Your task to perform on an android device: turn off notifications in google photos Image 0: 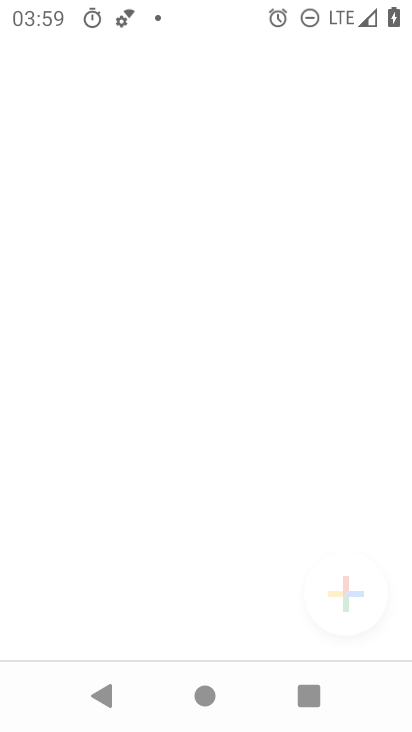
Step 0: drag from (286, 571) to (315, 113)
Your task to perform on an android device: turn off notifications in google photos Image 1: 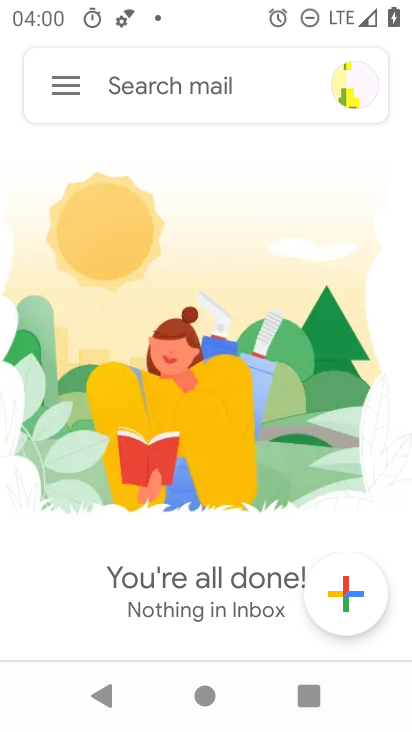
Step 1: click (65, 89)
Your task to perform on an android device: turn off notifications in google photos Image 2: 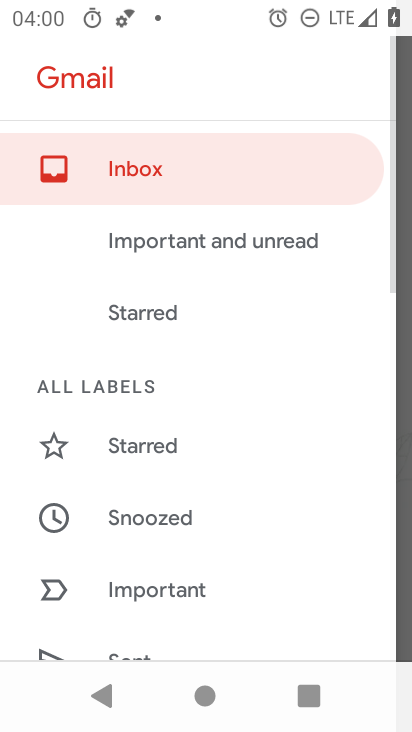
Step 2: drag from (268, 618) to (315, 10)
Your task to perform on an android device: turn off notifications in google photos Image 3: 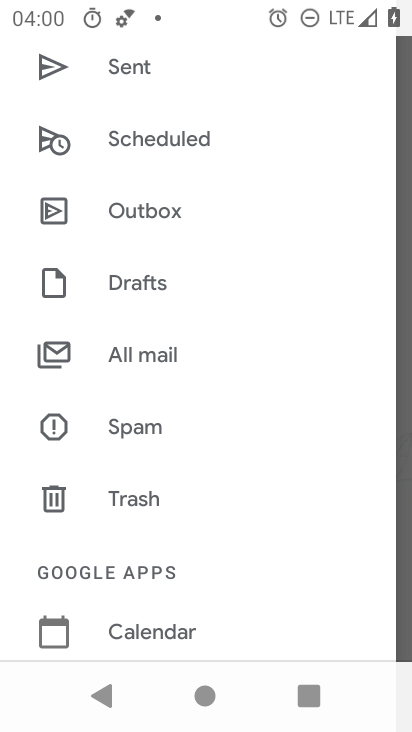
Step 3: drag from (220, 637) to (315, 56)
Your task to perform on an android device: turn off notifications in google photos Image 4: 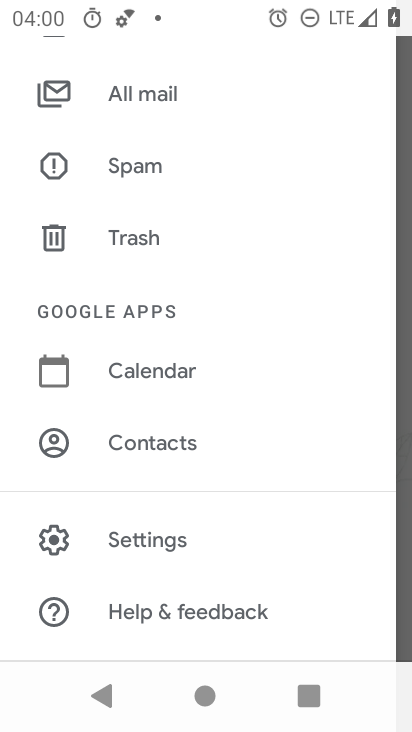
Step 4: press home button
Your task to perform on an android device: turn off notifications in google photos Image 5: 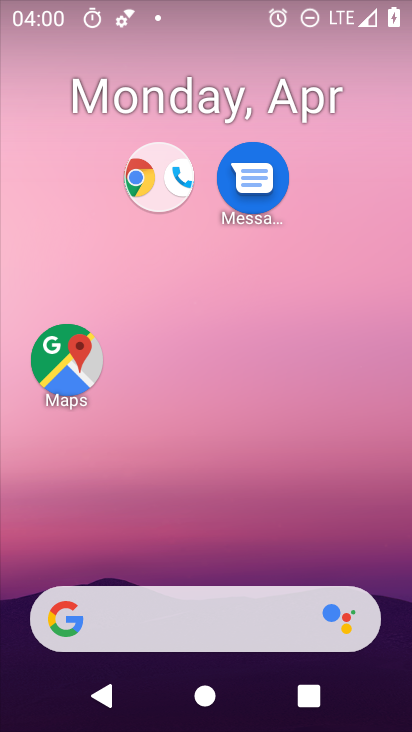
Step 5: drag from (301, 546) to (373, 1)
Your task to perform on an android device: turn off notifications in google photos Image 6: 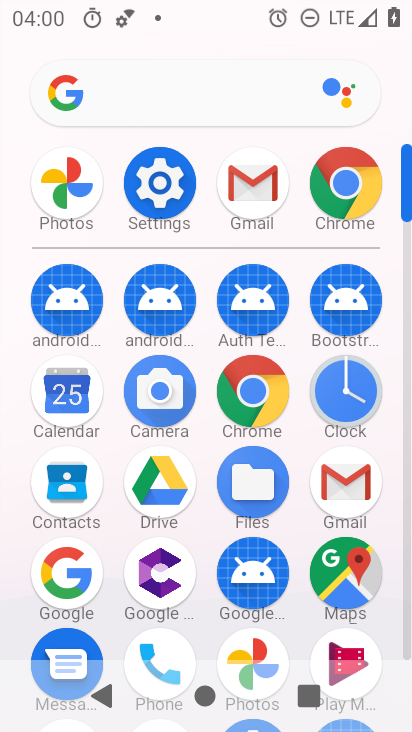
Step 6: drag from (279, 628) to (311, 172)
Your task to perform on an android device: turn off notifications in google photos Image 7: 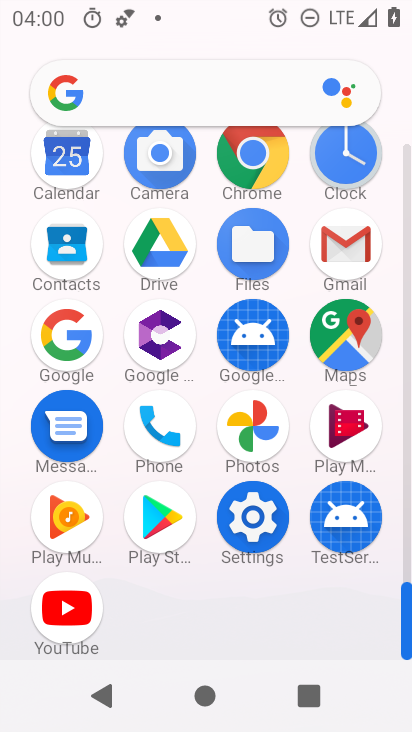
Step 7: click (263, 449)
Your task to perform on an android device: turn off notifications in google photos Image 8: 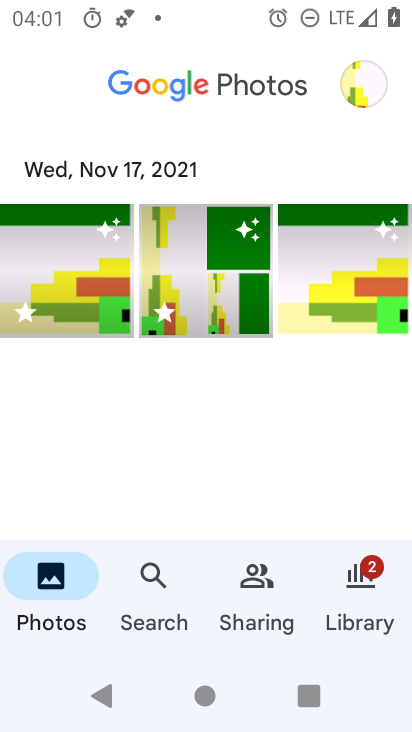
Step 8: click (384, 84)
Your task to perform on an android device: turn off notifications in google photos Image 9: 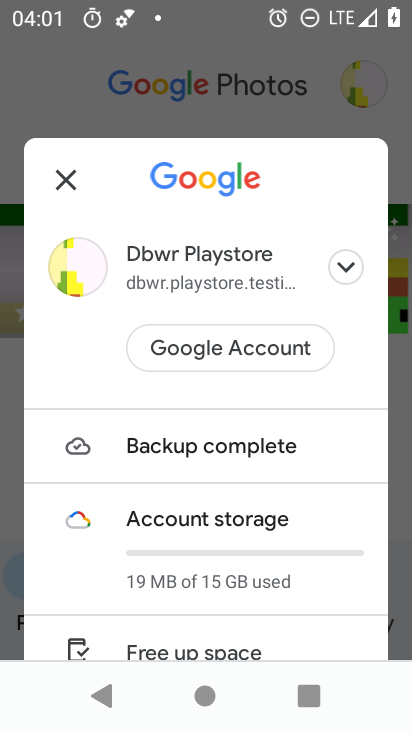
Step 9: drag from (301, 618) to (293, 90)
Your task to perform on an android device: turn off notifications in google photos Image 10: 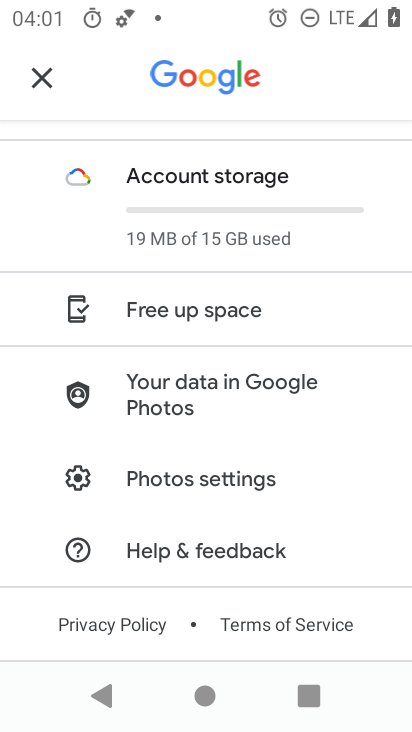
Step 10: click (40, 79)
Your task to perform on an android device: turn off notifications in google photos Image 11: 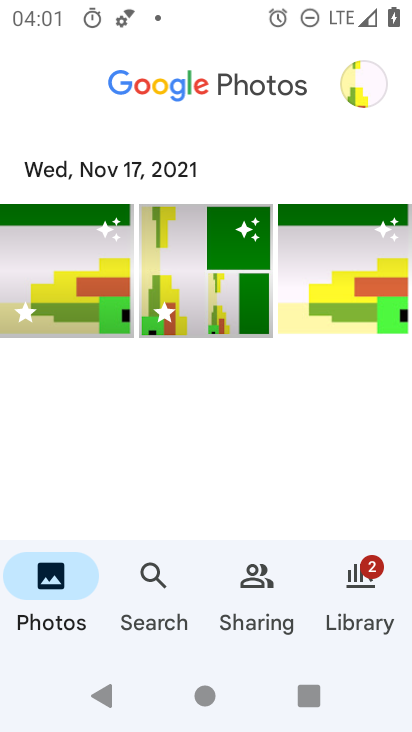
Step 11: click (377, 86)
Your task to perform on an android device: turn off notifications in google photos Image 12: 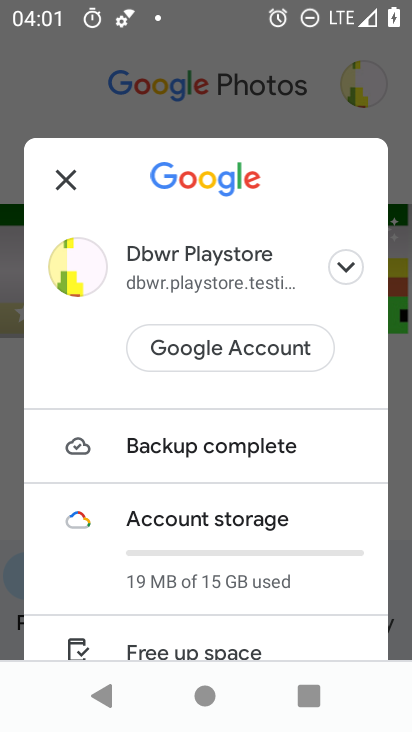
Step 12: click (70, 170)
Your task to perform on an android device: turn off notifications in google photos Image 13: 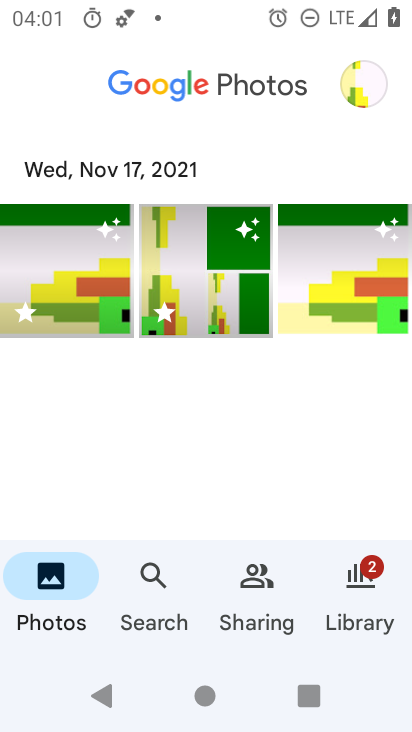
Step 13: click (350, 94)
Your task to perform on an android device: turn off notifications in google photos Image 14: 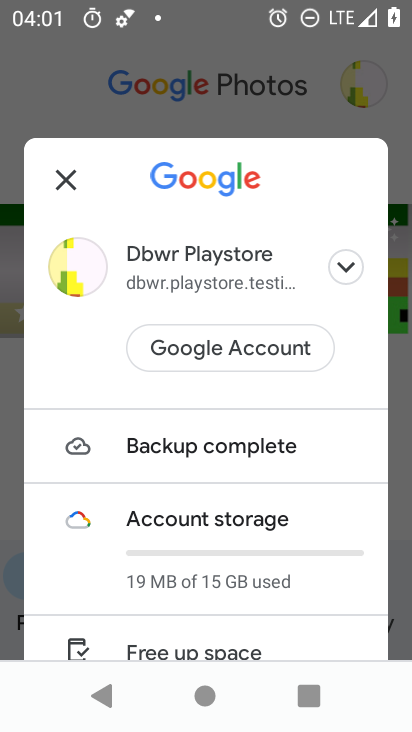
Step 14: drag from (219, 551) to (227, 144)
Your task to perform on an android device: turn off notifications in google photos Image 15: 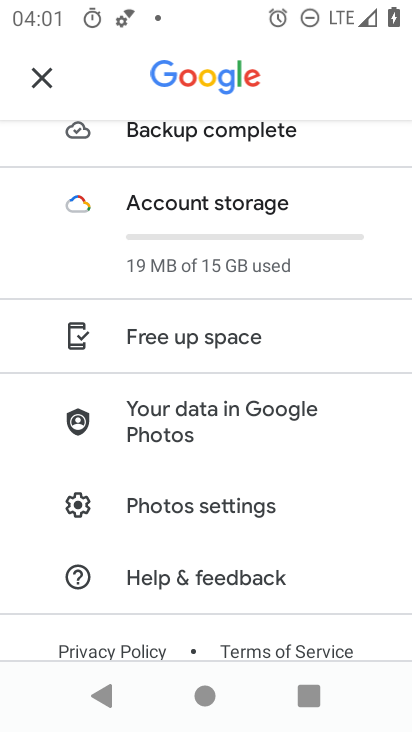
Step 15: click (248, 508)
Your task to perform on an android device: turn off notifications in google photos Image 16: 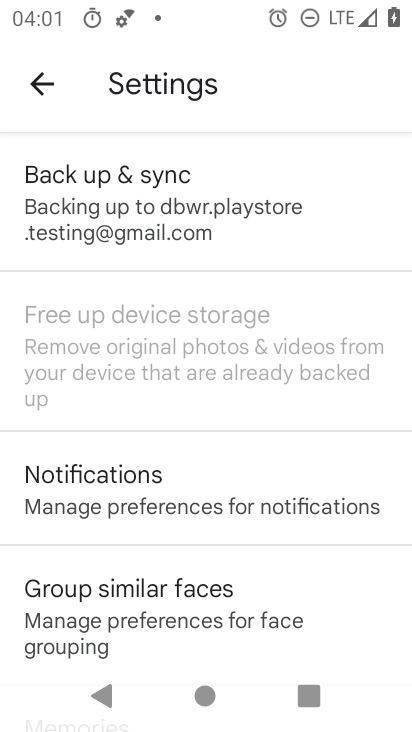
Step 16: drag from (277, 660) to (254, 392)
Your task to perform on an android device: turn off notifications in google photos Image 17: 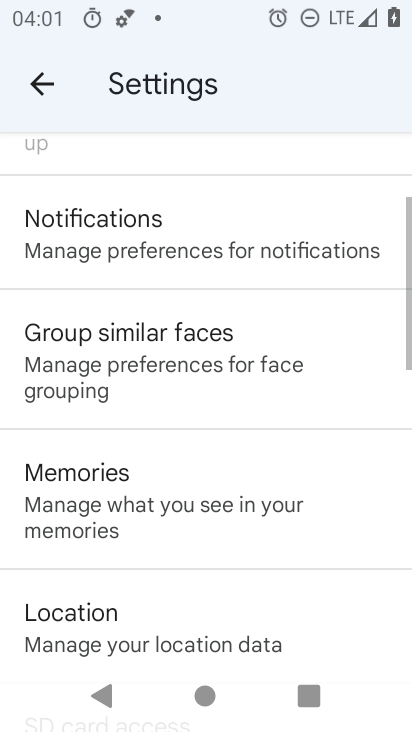
Step 17: click (256, 292)
Your task to perform on an android device: turn off notifications in google photos Image 18: 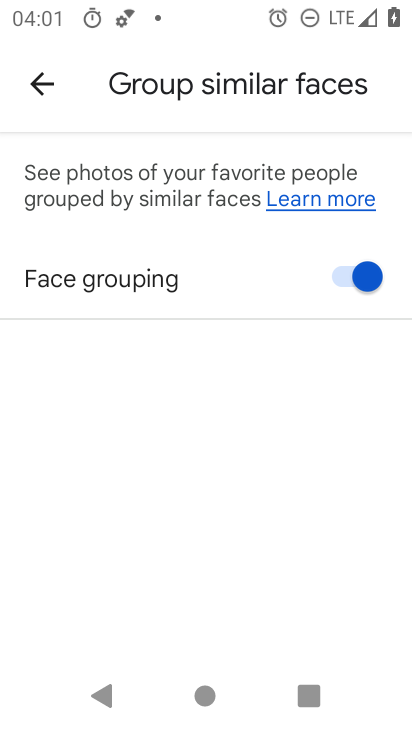
Step 18: press back button
Your task to perform on an android device: turn off notifications in google photos Image 19: 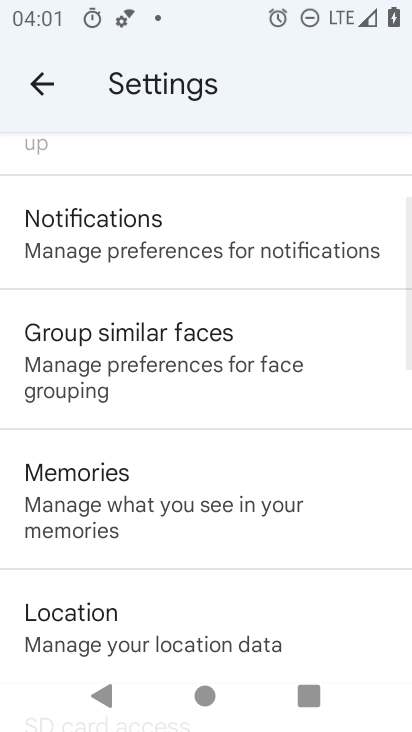
Step 19: click (264, 225)
Your task to perform on an android device: turn off notifications in google photos Image 20: 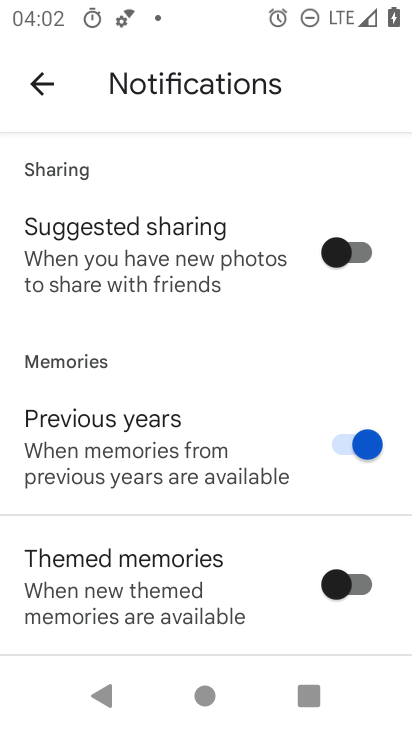
Step 20: drag from (288, 298) to (244, 656)
Your task to perform on an android device: turn off notifications in google photos Image 21: 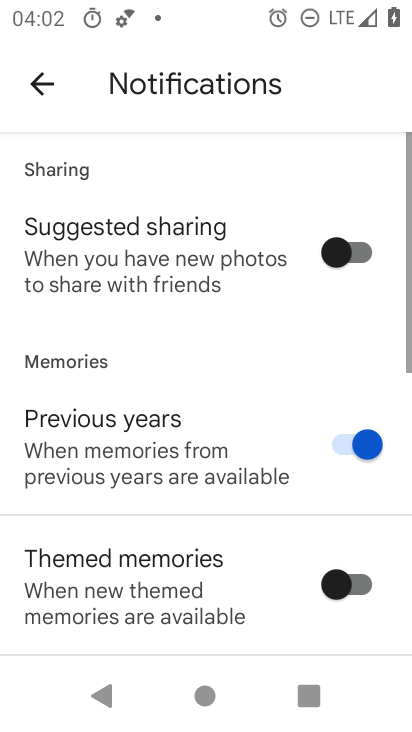
Step 21: drag from (251, 573) to (242, 50)
Your task to perform on an android device: turn off notifications in google photos Image 22: 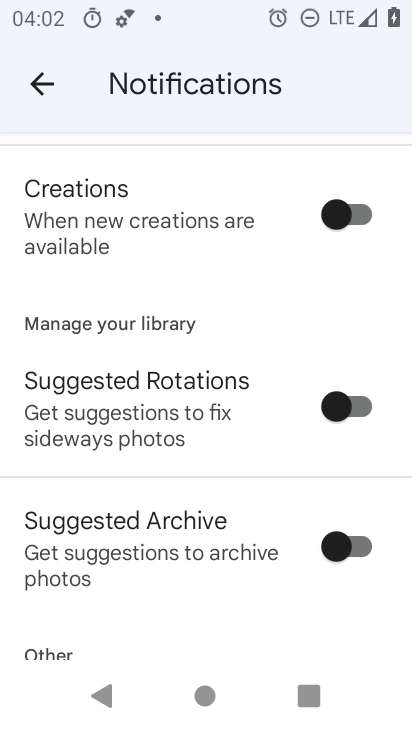
Step 22: drag from (227, 222) to (235, 665)
Your task to perform on an android device: turn off notifications in google photos Image 23: 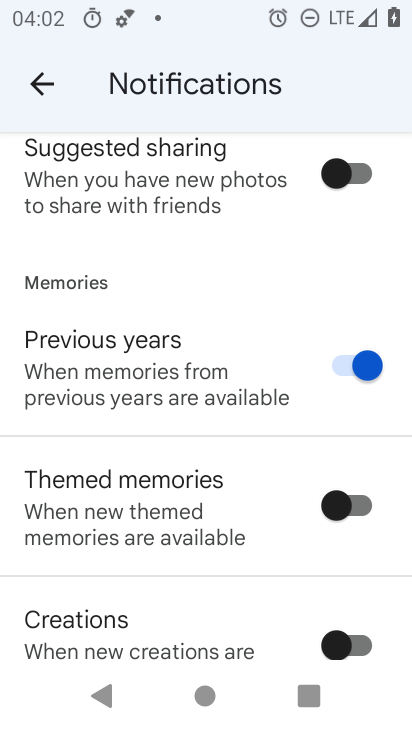
Step 23: drag from (218, 371) to (237, 659)
Your task to perform on an android device: turn off notifications in google photos Image 24: 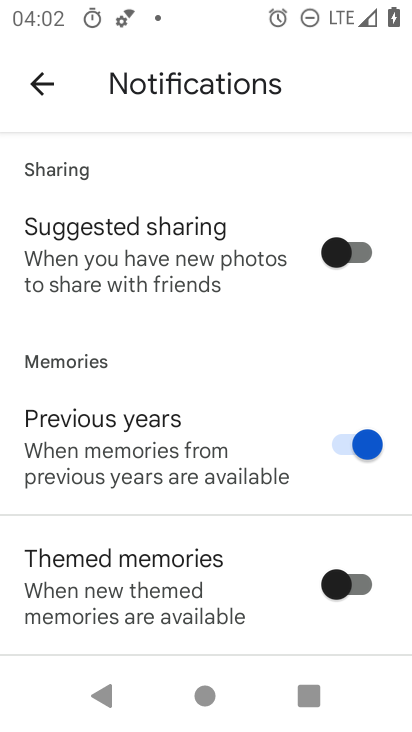
Step 24: drag from (245, 607) to (239, 110)
Your task to perform on an android device: turn off notifications in google photos Image 25: 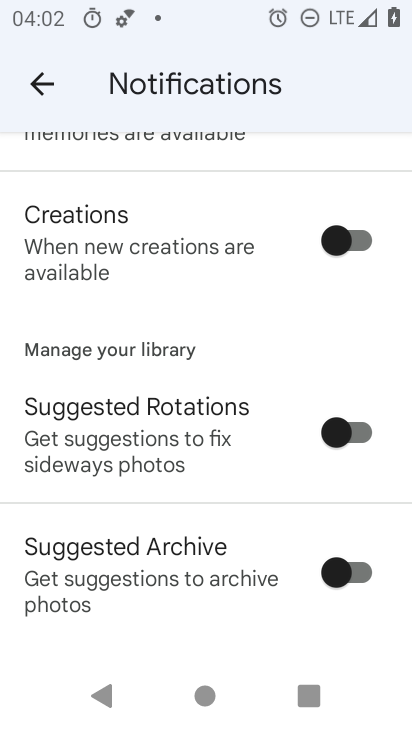
Step 25: drag from (245, 600) to (251, 135)
Your task to perform on an android device: turn off notifications in google photos Image 26: 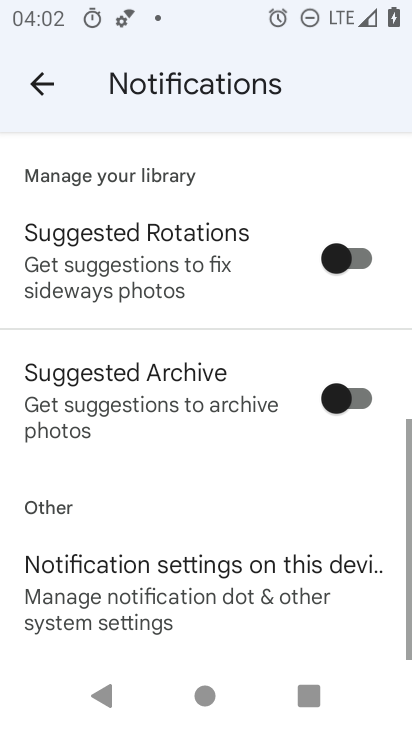
Step 26: click (210, 589)
Your task to perform on an android device: turn off notifications in google photos Image 27: 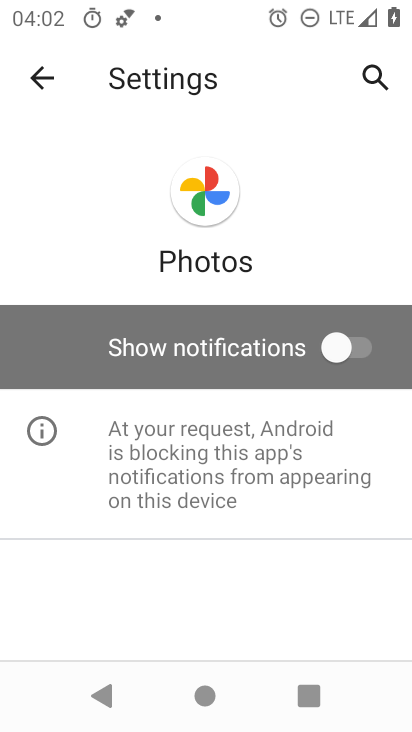
Step 27: task complete